Your task to perform on an android device: Search for Mexican restaurants on Maps Image 0: 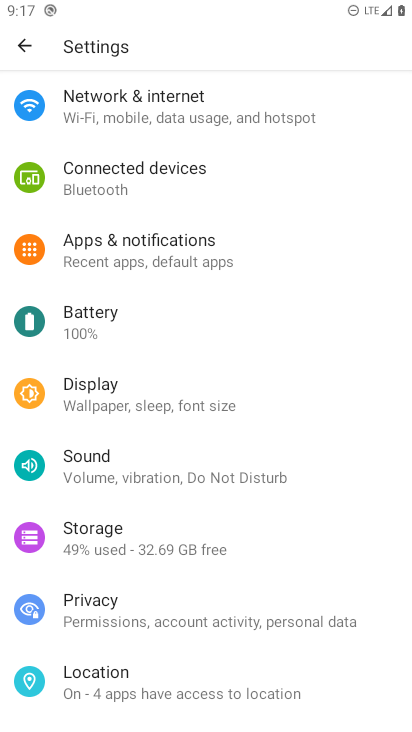
Step 0: press home button
Your task to perform on an android device: Search for Mexican restaurants on Maps Image 1: 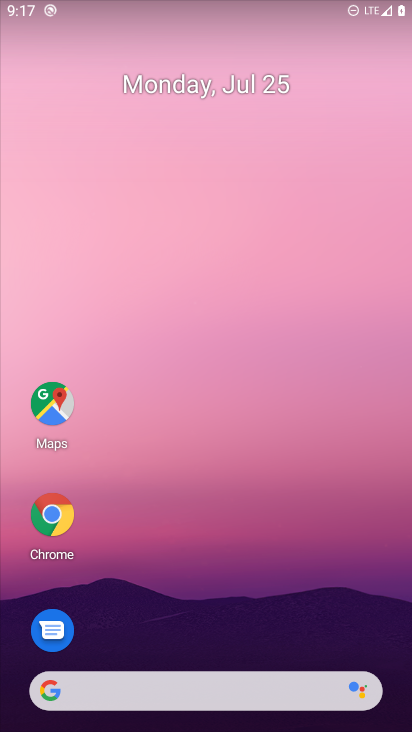
Step 1: click (61, 390)
Your task to perform on an android device: Search for Mexican restaurants on Maps Image 2: 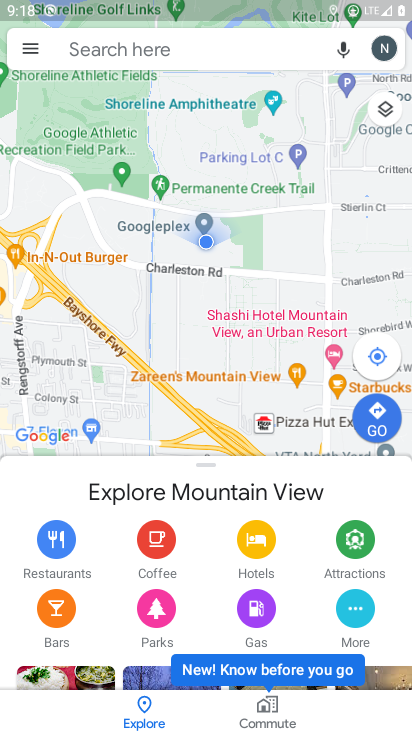
Step 2: click (101, 41)
Your task to perform on an android device: Search for Mexican restaurants on Maps Image 3: 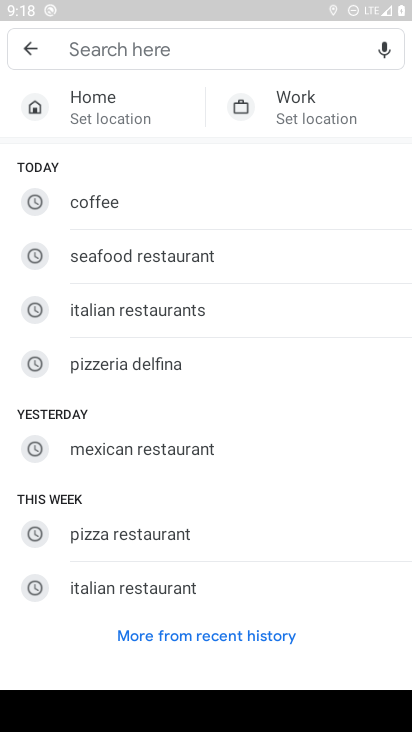
Step 3: type "Mexican restaurants"
Your task to perform on an android device: Search for Mexican restaurants on Maps Image 4: 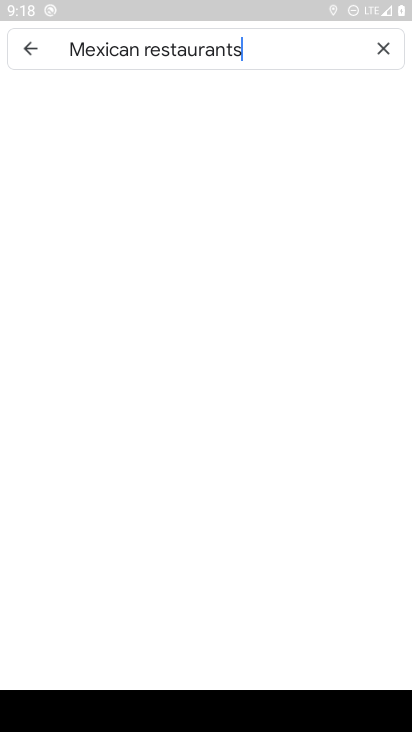
Step 4: type ""
Your task to perform on an android device: Search for Mexican restaurants on Maps Image 5: 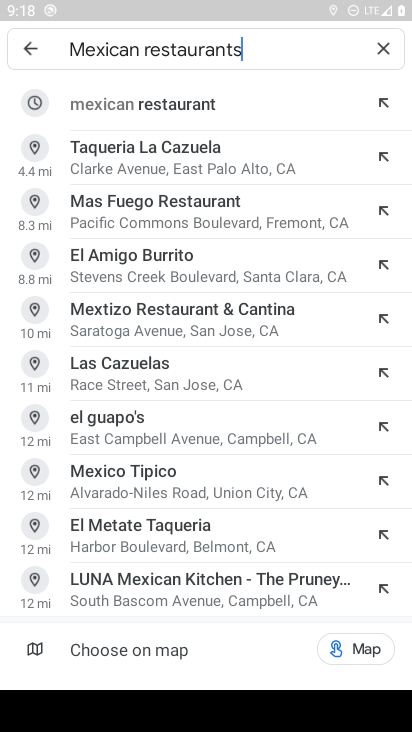
Step 5: click (194, 106)
Your task to perform on an android device: Search for Mexican restaurants on Maps Image 6: 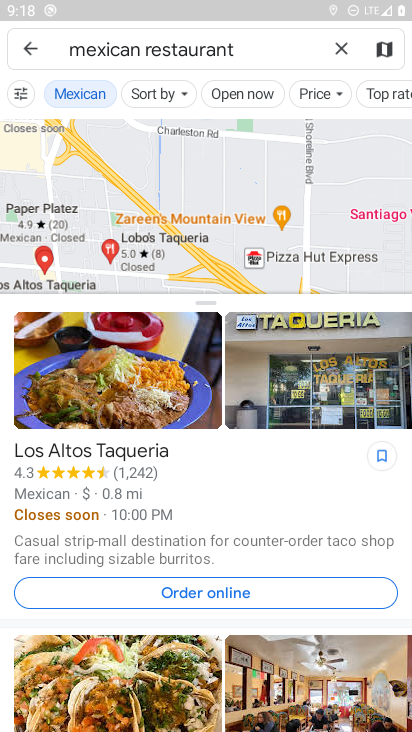
Step 6: task complete